Your task to perform on an android device: delete the emails in spam in the gmail app Image 0: 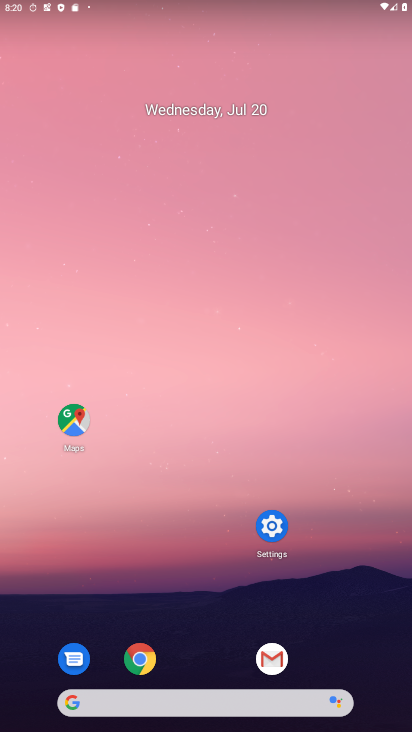
Step 0: press home button
Your task to perform on an android device: delete the emails in spam in the gmail app Image 1: 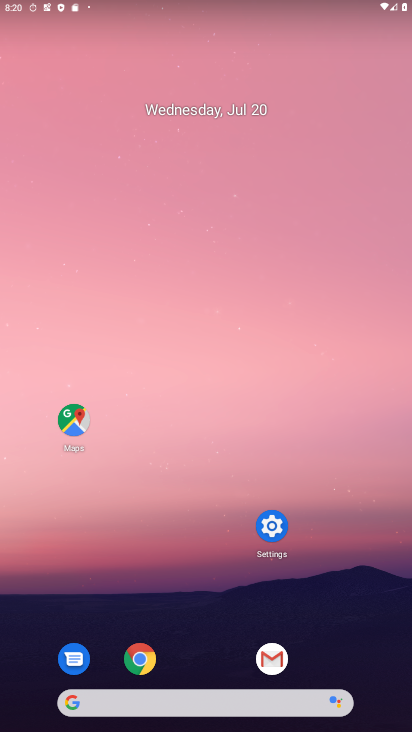
Step 1: click (276, 653)
Your task to perform on an android device: delete the emails in spam in the gmail app Image 2: 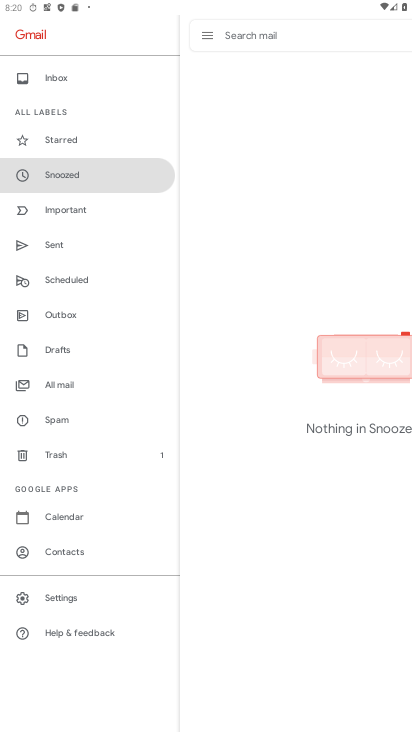
Step 2: click (74, 423)
Your task to perform on an android device: delete the emails in spam in the gmail app Image 3: 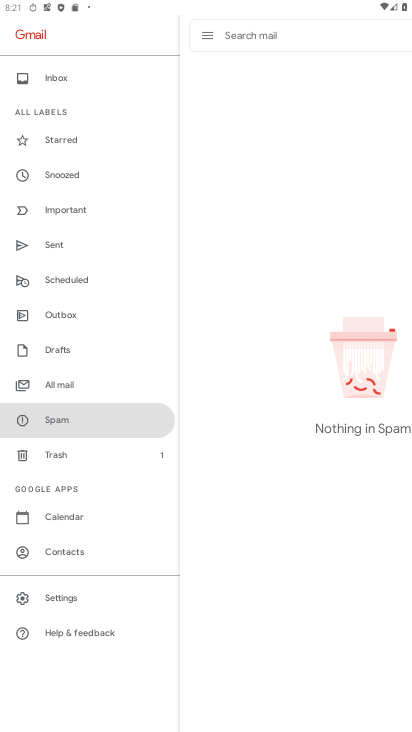
Step 3: task complete